Your task to perform on an android device: see creations saved in the google photos Image 0: 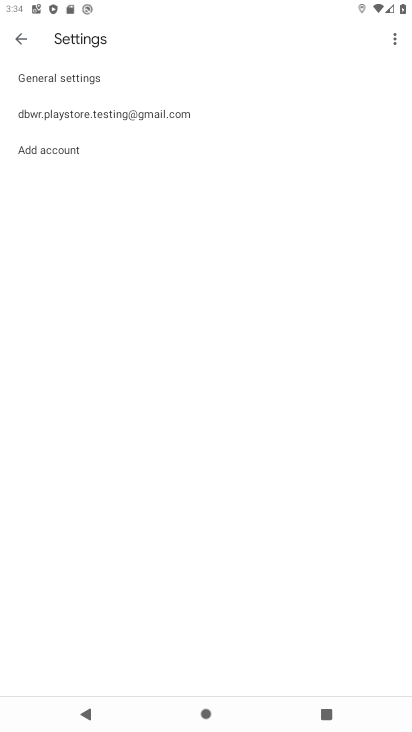
Step 0: press home button
Your task to perform on an android device: see creations saved in the google photos Image 1: 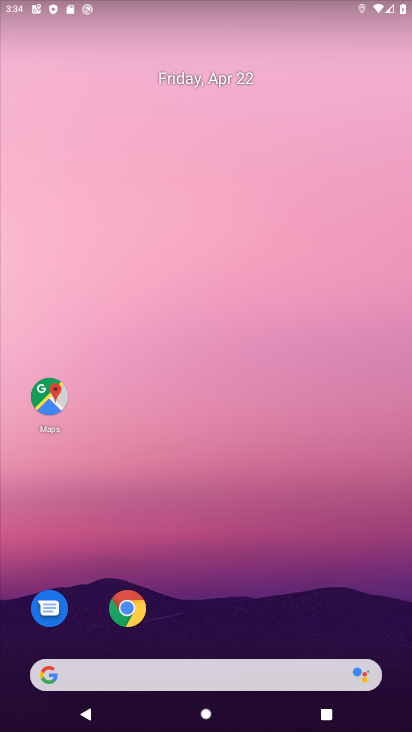
Step 1: drag from (316, 486) to (304, 190)
Your task to perform on an android device: see creations saved in the google photos Image 2: 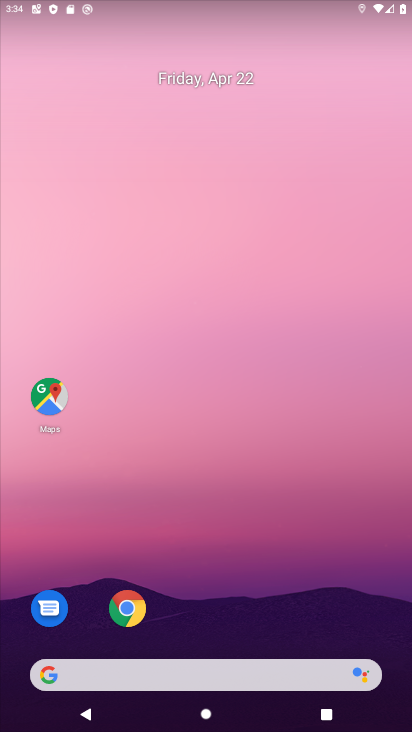
Step 2: drag from (290, 380) to (265, 124)
Your task to perform on an android device: see creations saved in the google photos Image 3: 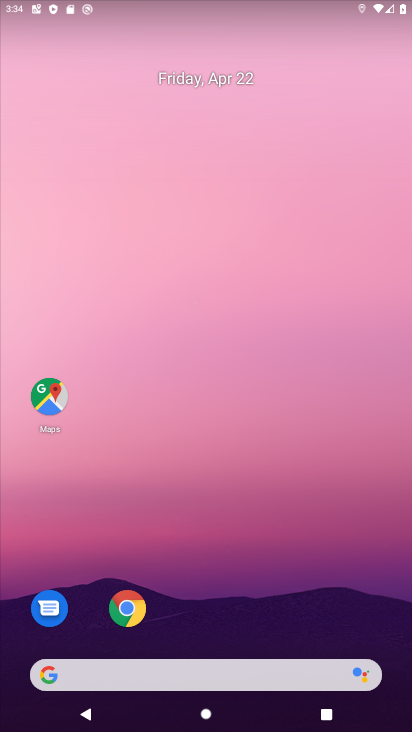
Step 3: drag from (335, 640) to (248, 12)
Your task to perform on an android device: see creations saved in the google photos Image 4: 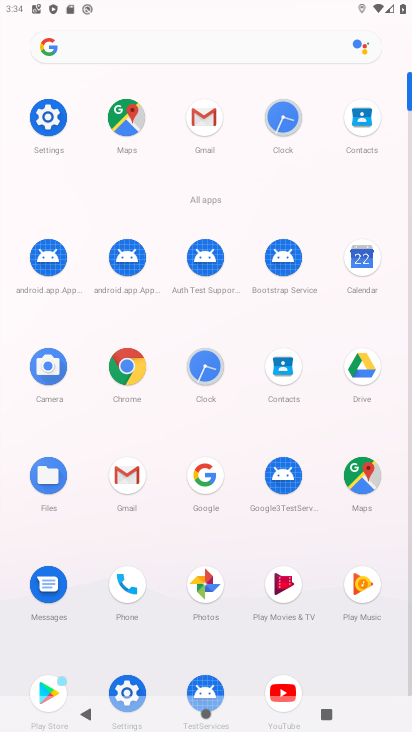
Step 4: click (201, 585)
Your task to perform on an android device: see creations saved in the google photos Image 5: 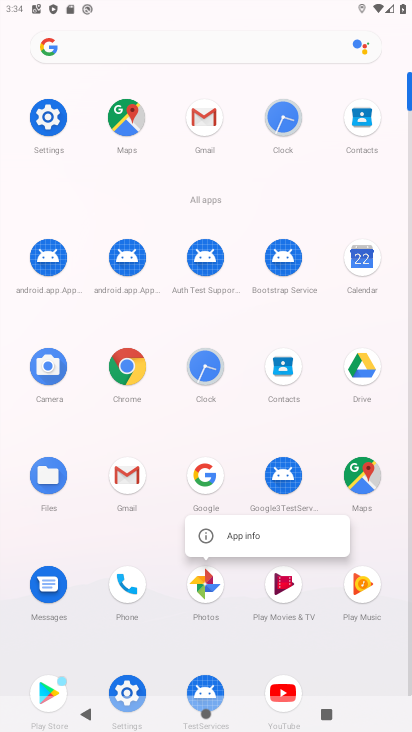
Step 5: click (201, 585)
Your task to perform on an android device: see creations saved in the google photos Image 6: 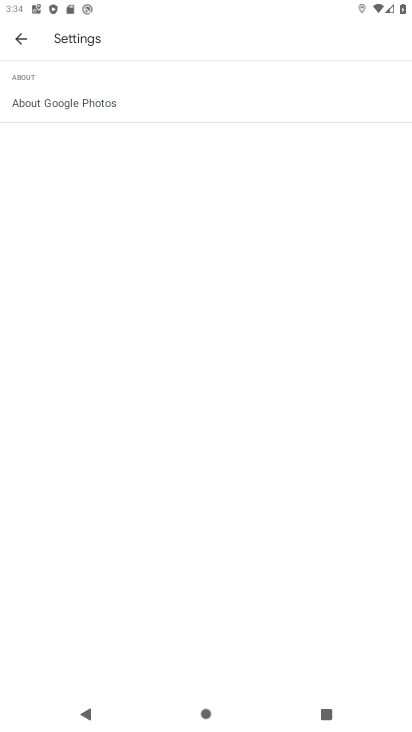
Step 6: click (31, 40)
Your task to perform on an android device: see creations saved in the google photos Image 7: 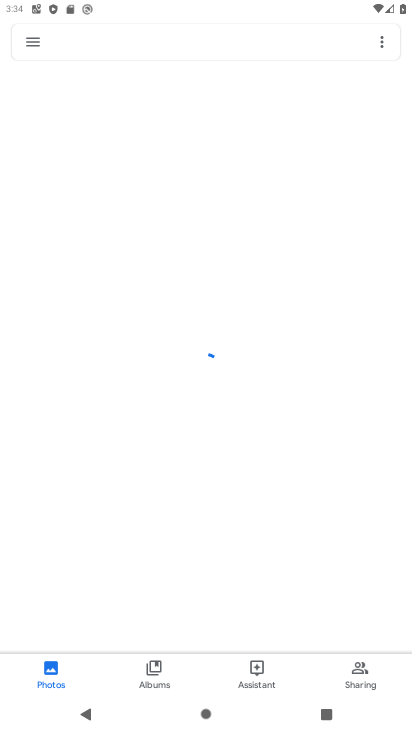
Step 7: click (168, 45)
Your task to perform on an android device: see creations saved in the google photos Image 8: 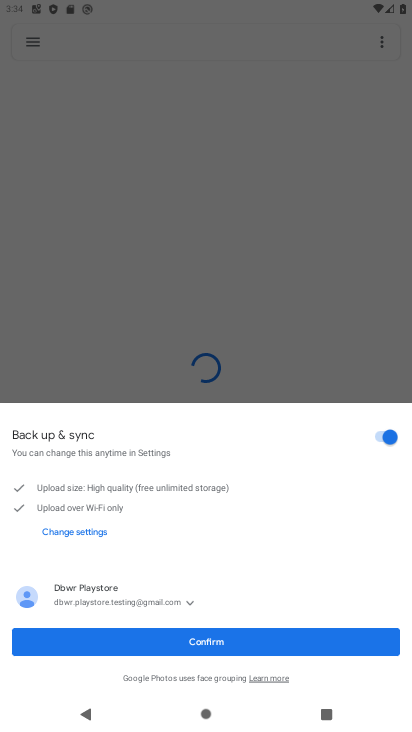
Step 8: click (231, 648)
Your task to perform on an android device: see creations saved in the google photos Image 9: 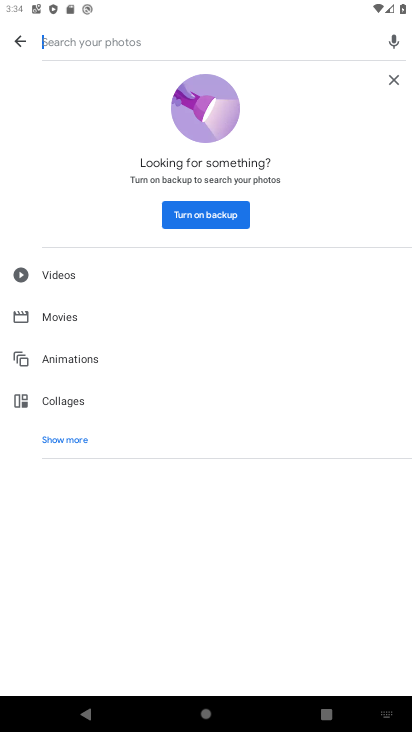
Step 9: click (237, 216)
Your task to perform on an android device: see creations saved in the google photos Image 10: 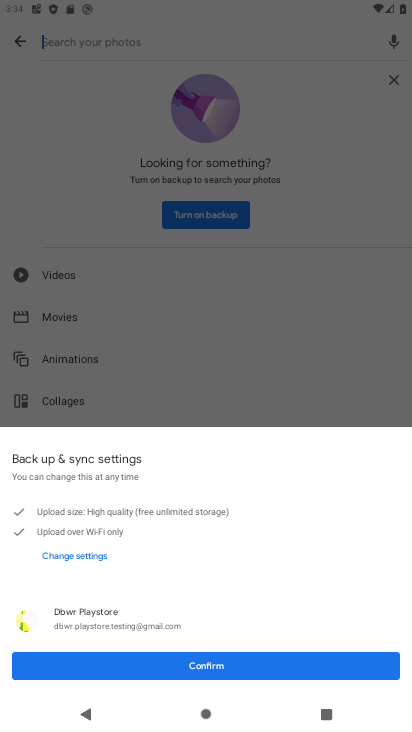
Step 10: click (240, 667)
Your task to perform on an android device: see creations saved in the google photos Image 11: 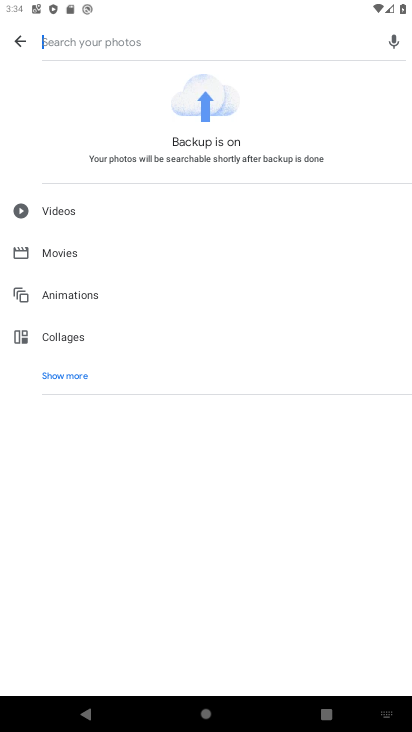
Step 11: click (88, 386)
Your task to perform on an android device: see creations saved in the google photos Image 12: 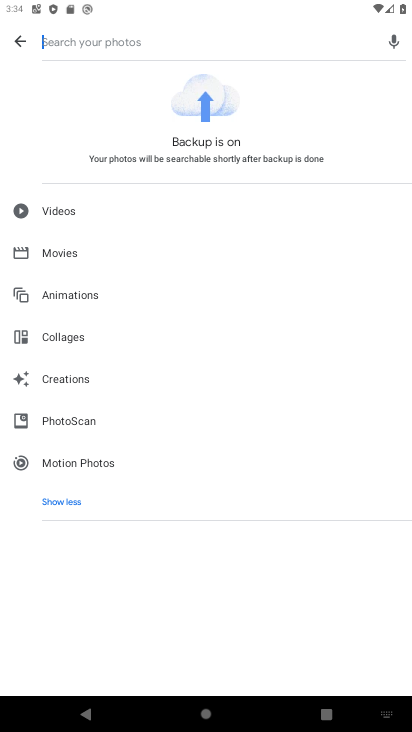
Step 12: click (87, 386)
Your task to perform on an android device: see creations saved in the google photos Image 13: 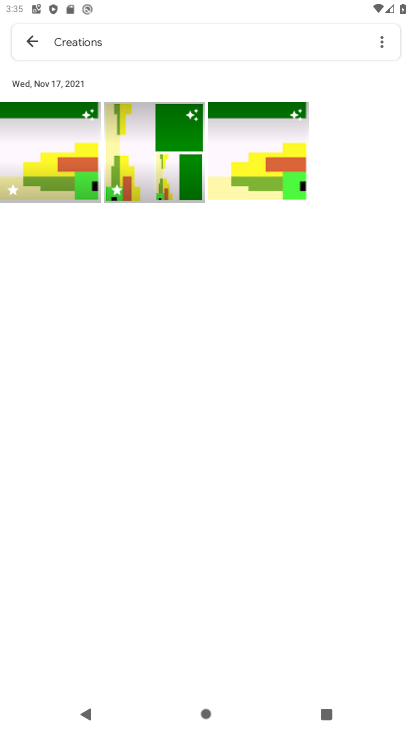
Step 13: task complete